Your task to perform on an android device: see creations saved in the google photos Image 0: 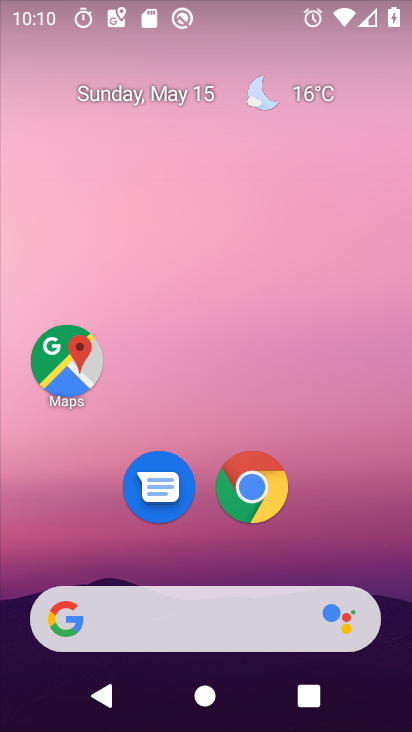
Step 0: drag from (361, 559) to (385, 190)
Your task to perform on an android device: see creations saved in the google photos Image 1: 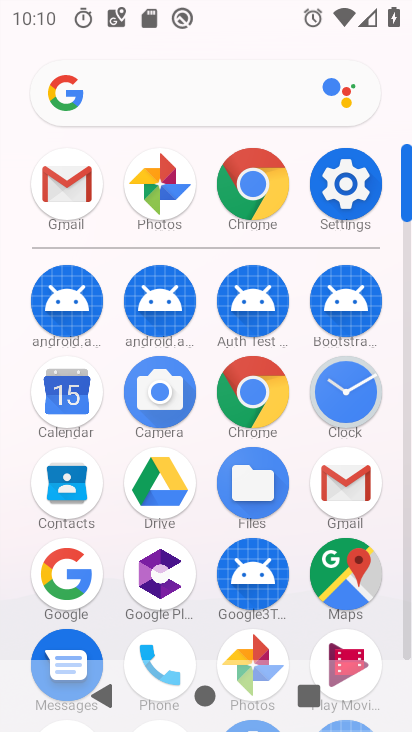
Step 1: click (252, 652)
Your task to perform on an android device: see creations saved in the google photos Image 2: 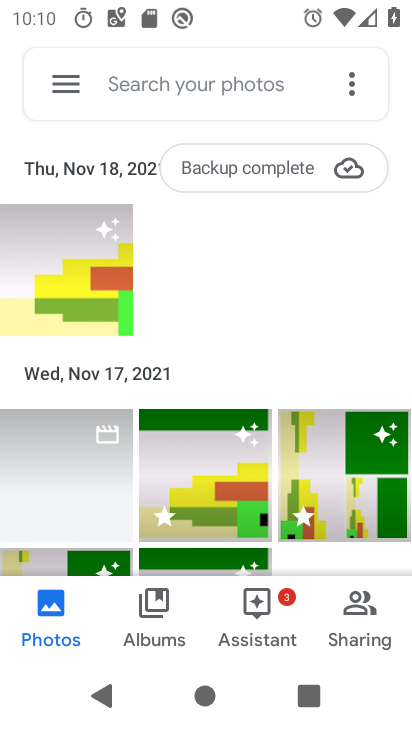
Step 2: click (135, 93)
Your task to perform on an android device: see creations saved in the google photos Image 3: 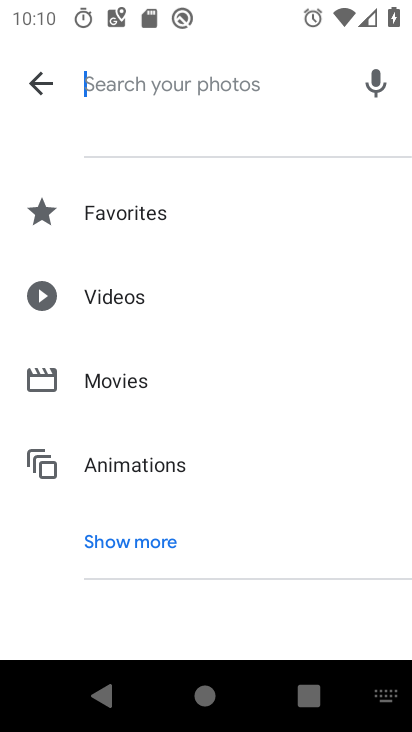
Step 3: type "creations"
Your task to perform on an android device: see creations saved in the google photos Image 4: 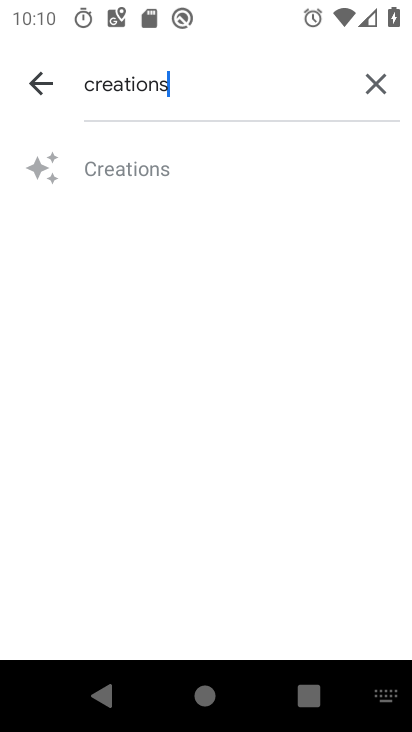
Step 4: click (166, 168)
Your task to perform on an android device: see creations saved in the google photos Image 5: 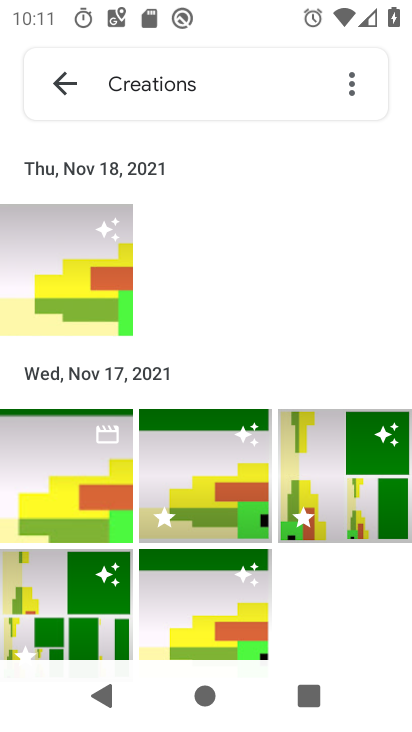
Step 5: task complete